Your task to perform on an android device: turn on the 12-hour format for clock Image 0: 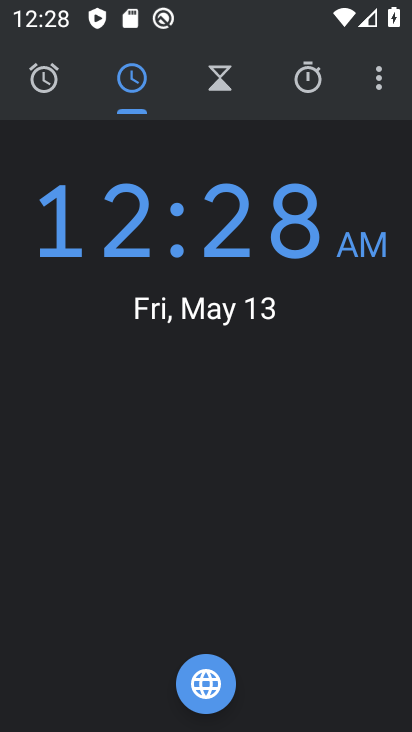
Step 0: press home button
Your task to perform on an android device: turn on the 12-hour format for clock Image 1: 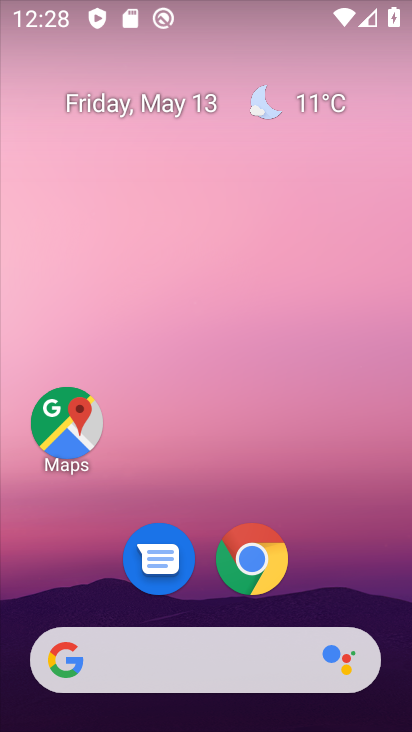
Step 1: drag from (215, 534) to (270, 204)
Your task to perform on an android device: turn on the 12-hour format for clock Image 2: 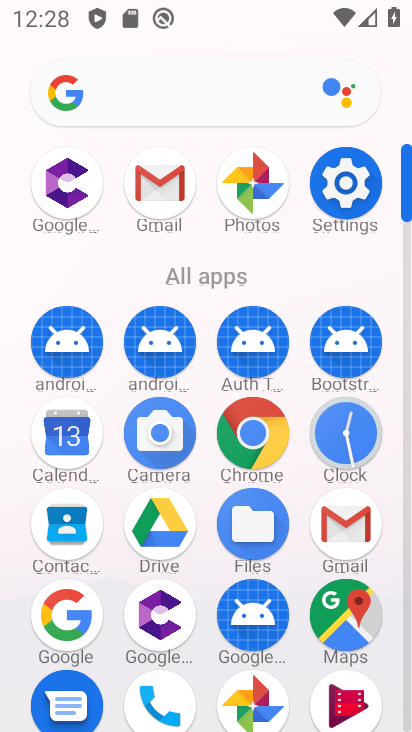
Step 2: click (347, 431)
Your task to perform on an android device: turn on the 12-hour format for clock Image 3: 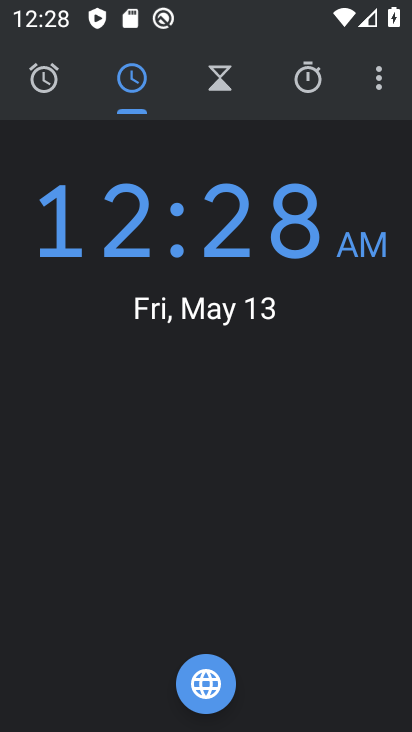
Step 3: click (377, 78)
Your task to perform on an android device: turn on the 12-hour format for clock Image 4: 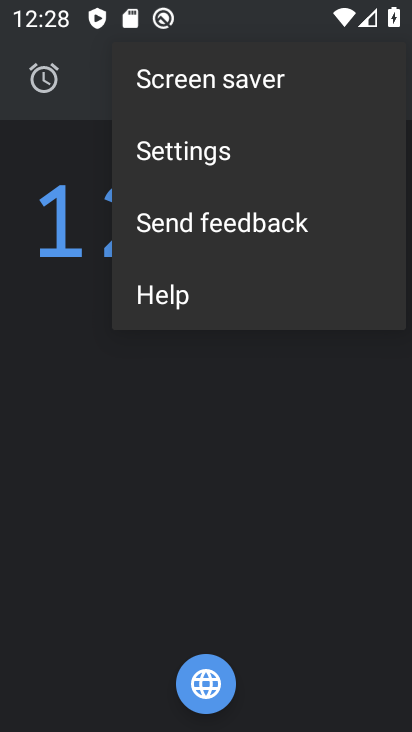
Step 4: click (215, 150)
Your task to perform on an android device: turn on the 12-hour format for clock Image 5: 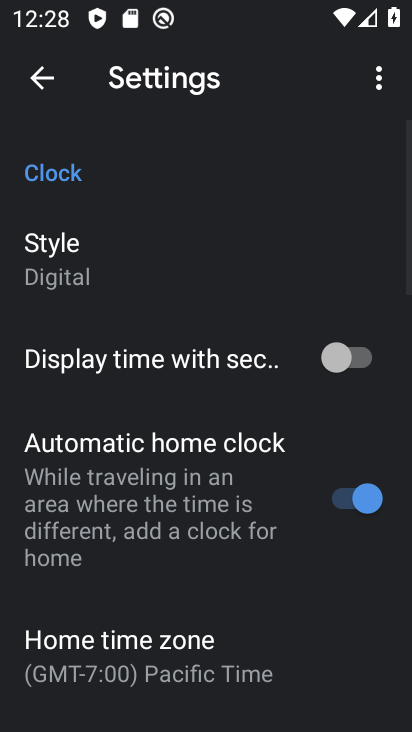
Step 5: drag from (164, 621) to (193, 205)
Your task to perform on an android device: turn on the 12-hour format for clock Image 6: 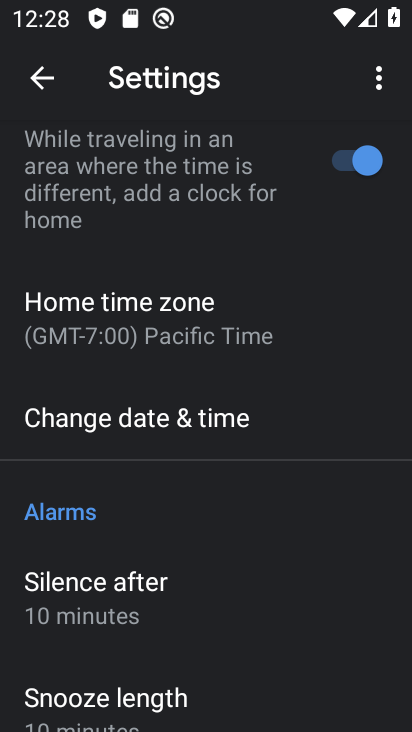
Step 6: click (88, 425)
Your task to perform on an android device: turn on the 12-hour format for clock Image 7: 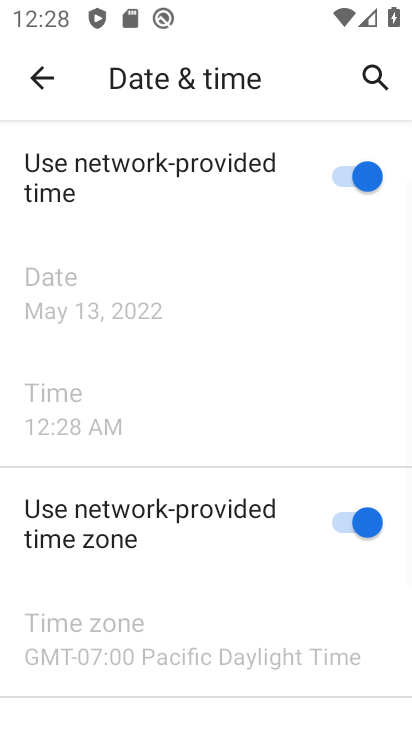
Step 7: drag from (205, 599) to (232, 138)
Your task to perform on an android device: turn on the 12-hour format for clock Image 8: 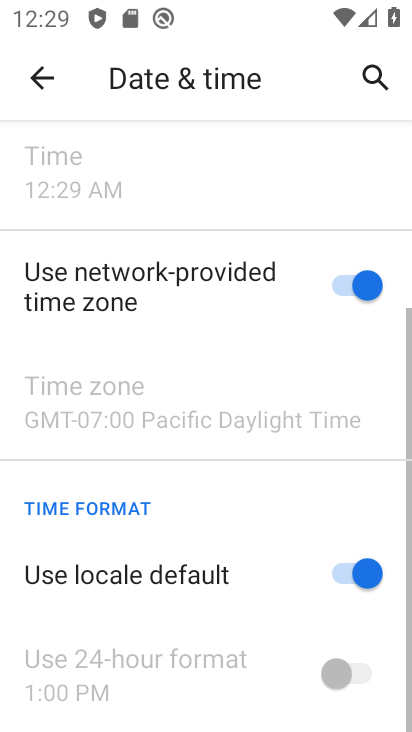
Step 8: click (340, 567)
Your task to perform on an android device: turn on the 12-hour format for clock Image 9: 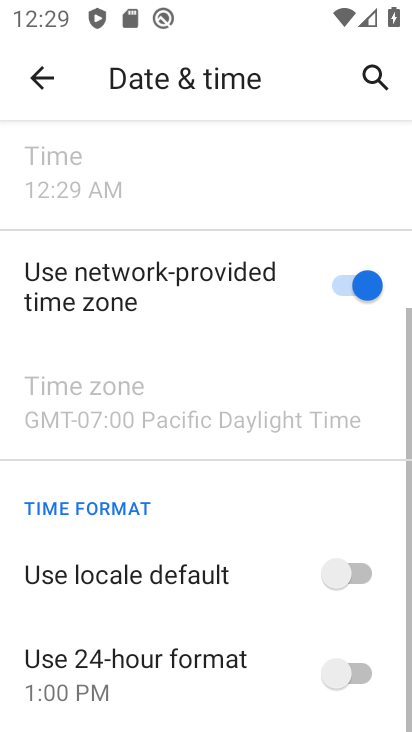
Step 9: click (336, 683)
Your task to perform on an android device: turn on the 12-hour format for clock Image 10: 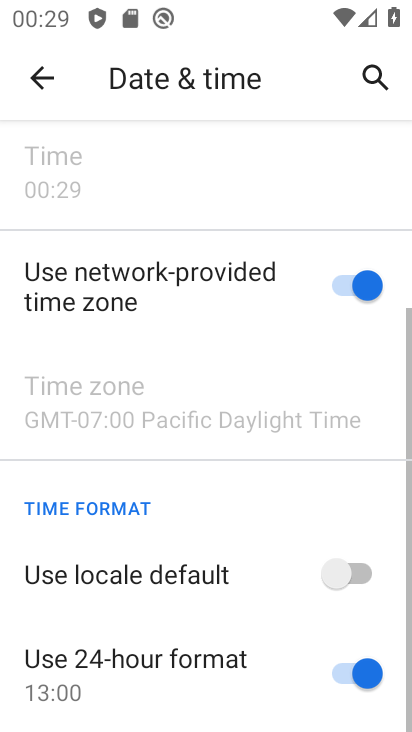
Step 10: task complete